Your task to perform on an android device: Open Chrome and go to settings Image 0: 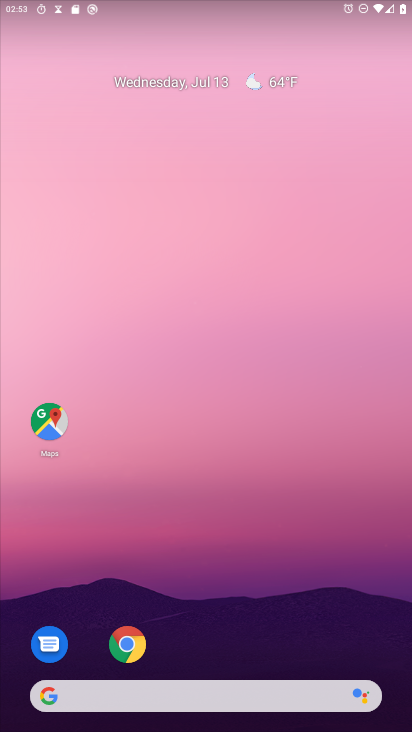
Step 0: press home button
Your task to perform on an android device: Open Chrome and go to settings Image 1: 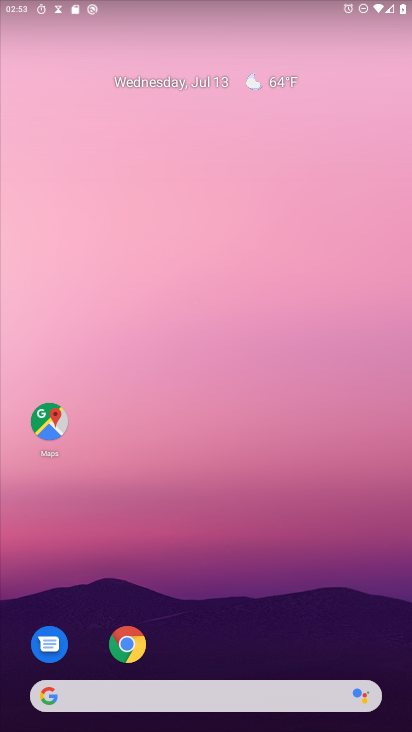
Step 1: drag from (294, 628) to (281, 234)
Your task to perform on an android device: Open Chrome and go to settings Image 2: 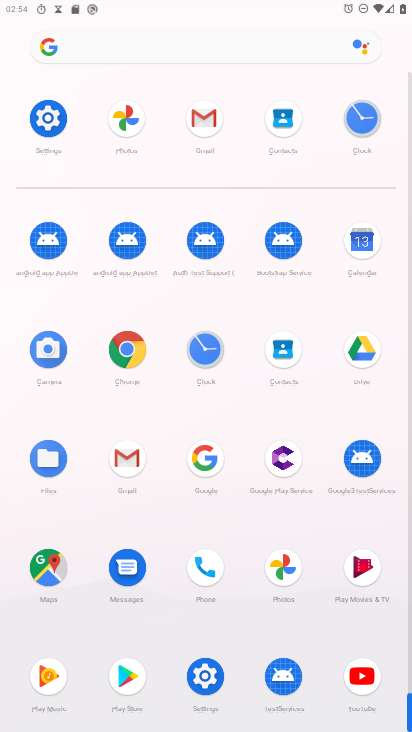
Step 2: click (129, 340)
Your task to perform on an android device: Open Chrome and go to settings Image 3: 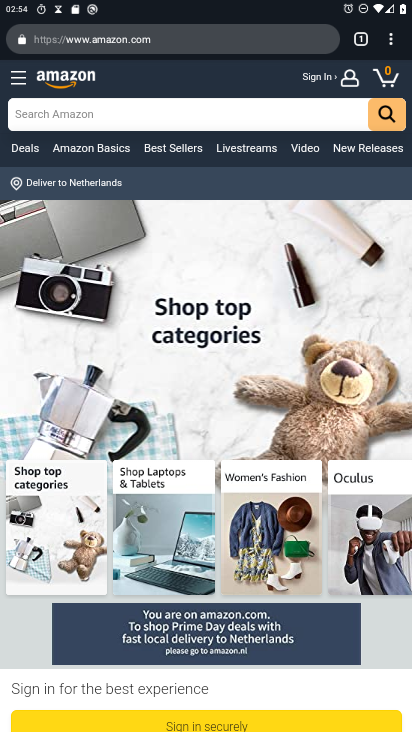
Step 3: click (391, 39)
Your task to perform on an android device: Open Chrome and go to settings Image 4: 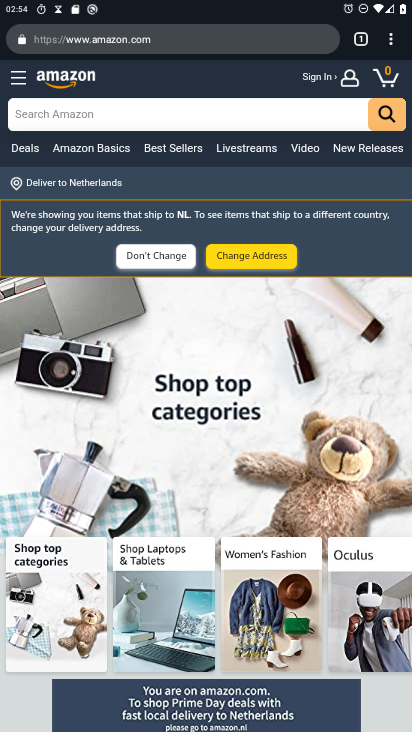
Step 4: task complete